Your task to perform on an android device: delete browsing data in the chrome app Image 0: 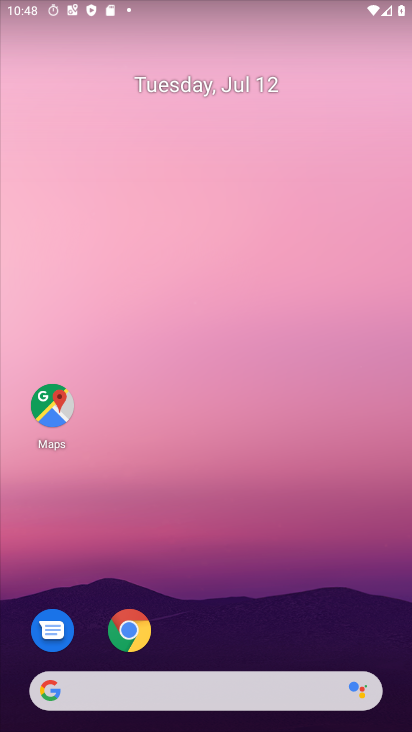
Step 0: click (129, 629)
Your task to perform on an android device: delete browsing data in the chrome app Image 1: 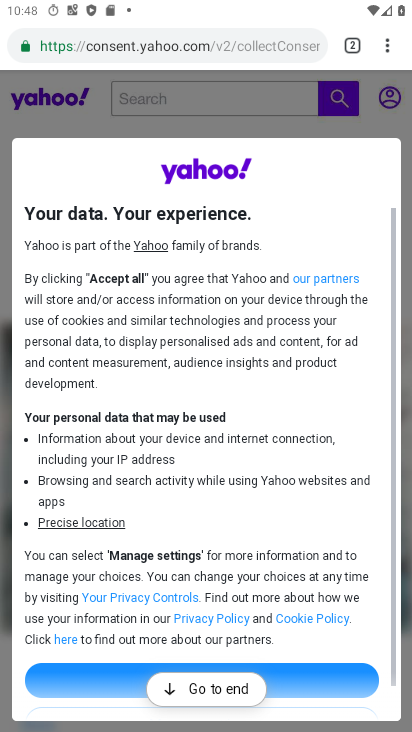
Step 1: click (383, 45)
Your task to perform on an android device: delete browsing data in the chrome app Image 2: 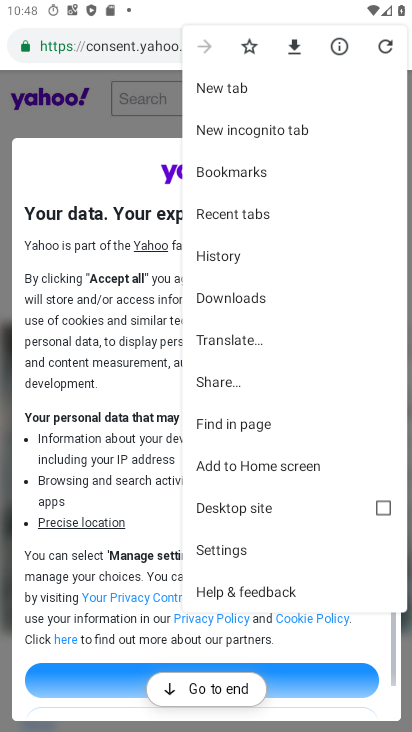
Step 2: click (223, 552)
Your task to perform on an android device: delete browsing data in the chrome app Image 3: 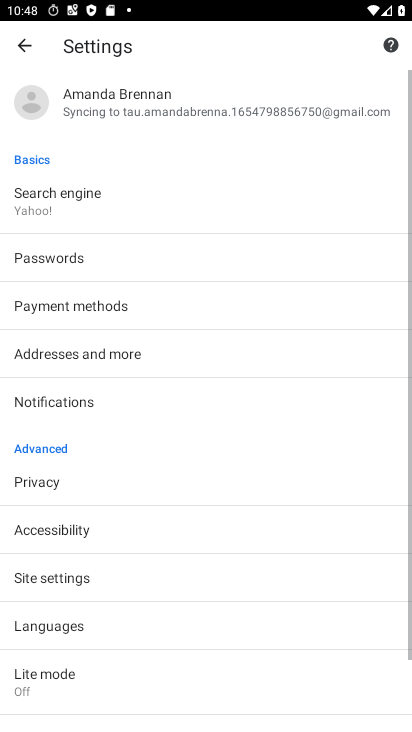
Step 3: click (37, 477)
Your task to perform on an android device: delete browsing data in the chrome app Image 4: 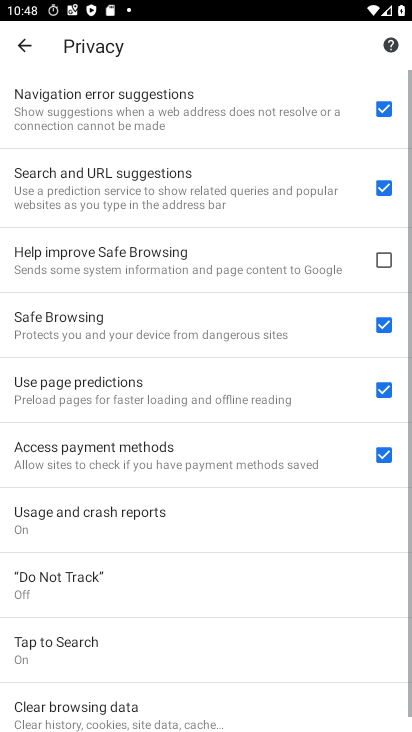
Step 4: drag from (253, 584) to (236, 112)
Your task to perform on an android device: delete browsing data in the chrome app Image 5: 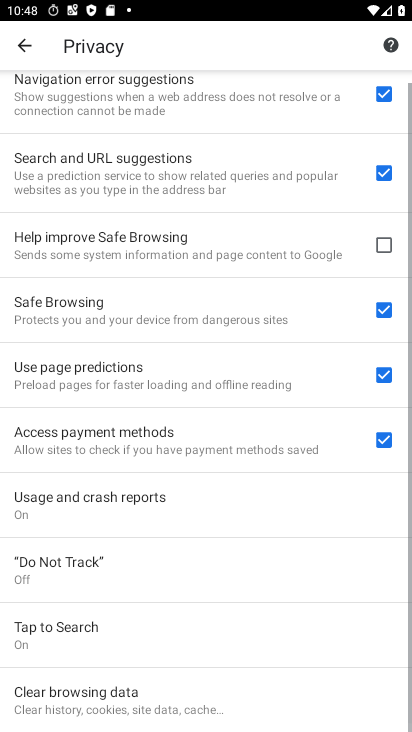
Step 5: click (119, 706)
Your task to perform on an android device: delete browsing data in the chrome app Image 6: 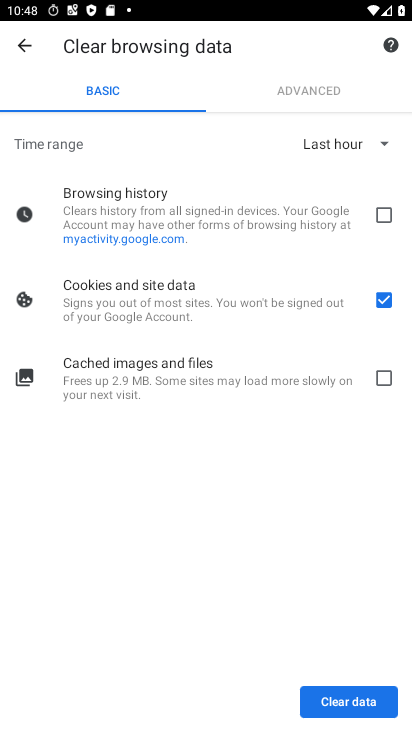
Step 6: click (380, 212)
Your task to perform on an android device: delete browsing data in the chrome app Image 7: 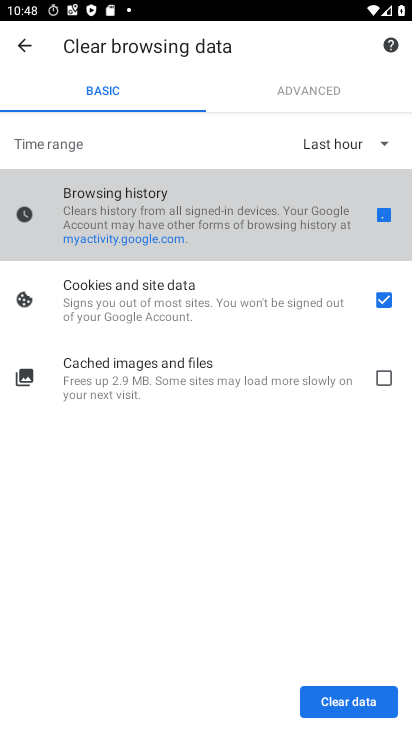
Step 7: click (381, 383)
Your task to perform on an android device: delete browsing data in the chrome app Image 8: 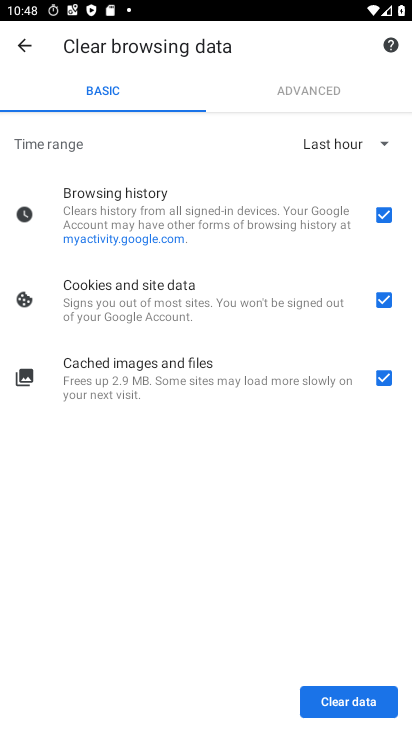
Step 8: click (326, 687)
Your task to perform on an android device: delete browsing data in the chrome app Image 9: 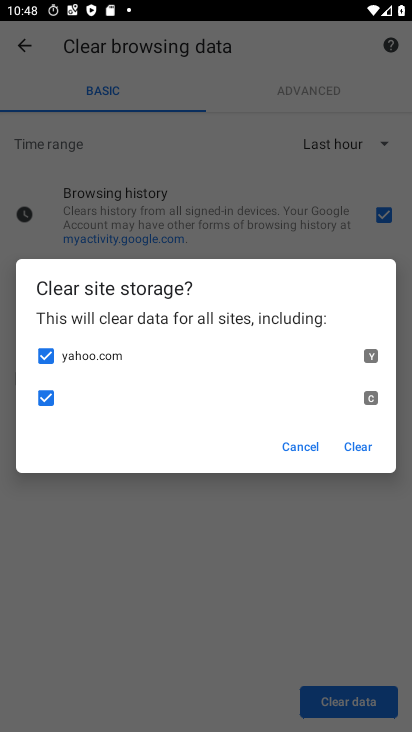
Step 9: click (350, 446)
Your task to perform on an android device: delete browsing data in the chrome app Image 10: 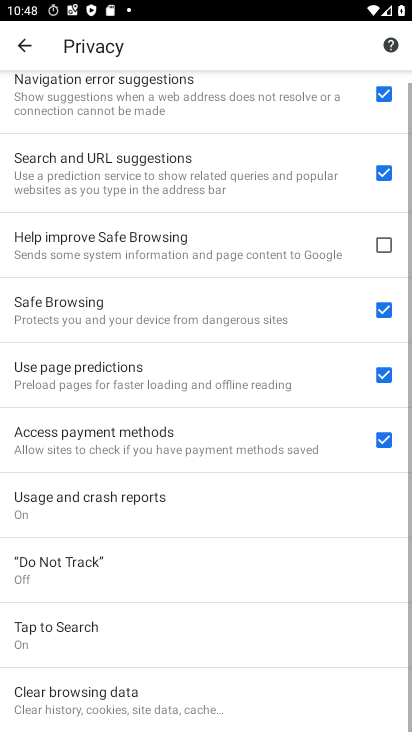
Step 10: task complete